Your task to perform on an android device: set the stopwatch Image 0: 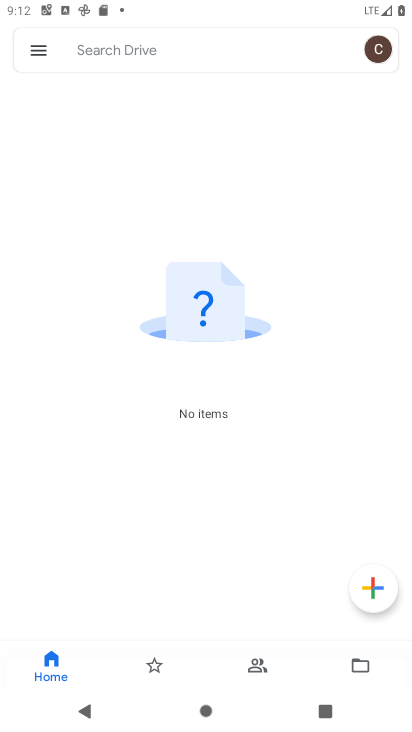
Step 0: press home button
Your task to perform on an android device: set the stopwatch Image 1: 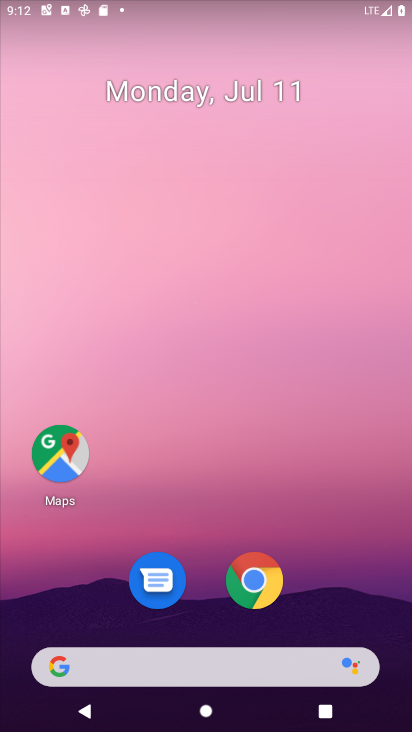
Step 1: drag from (281, 527) to (259, 24)
Your task to perform on an android device: set the stopwatch Image 2: 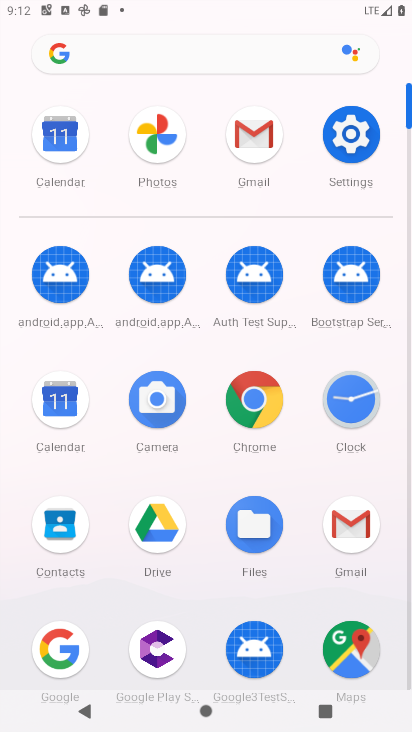
Step 2: click (347, 392)
Your task to perform on an android device: set the stopwatch Image 3: 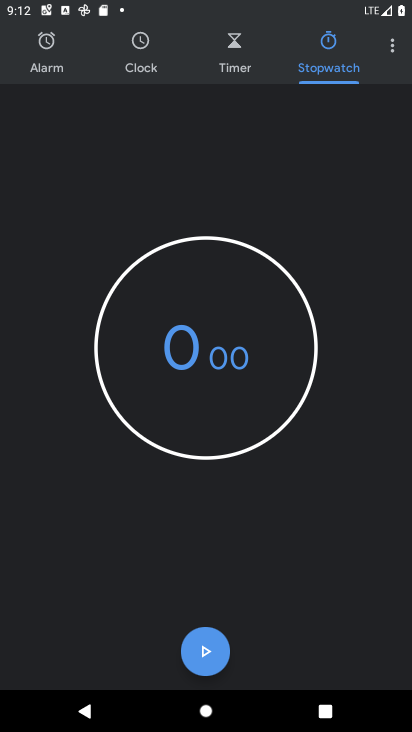
Step 3: click (211, 646)
Your task to perform on an android device: set the stopwatch Image 4: 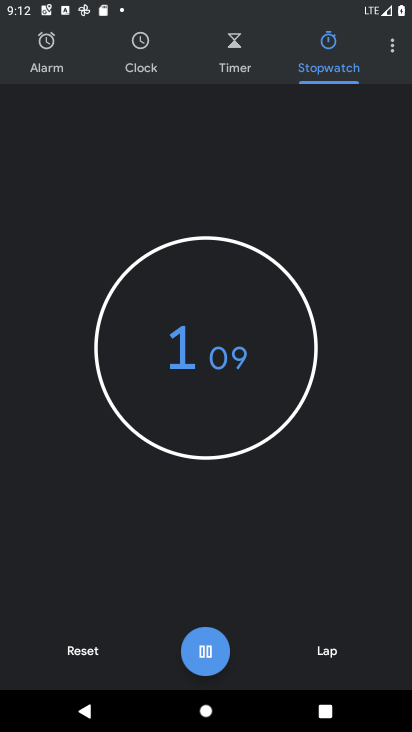
Step 4: click (211, 646)
Your task to perform on an android device: set the stopwatch Image 5: 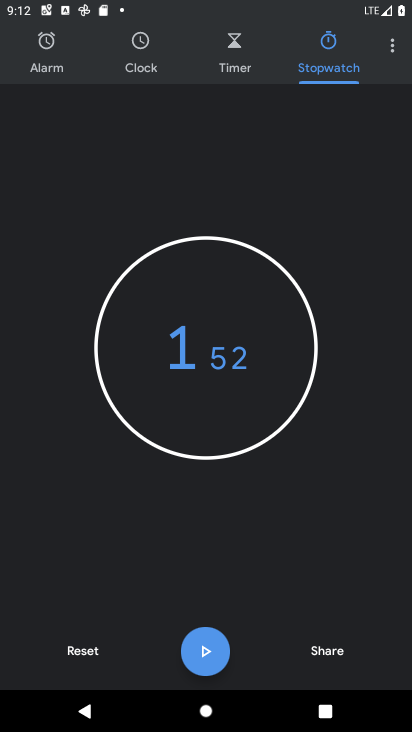
Step 5: task complete